Your task to perform on an android device: Do I have any events this weekend? Image 0: 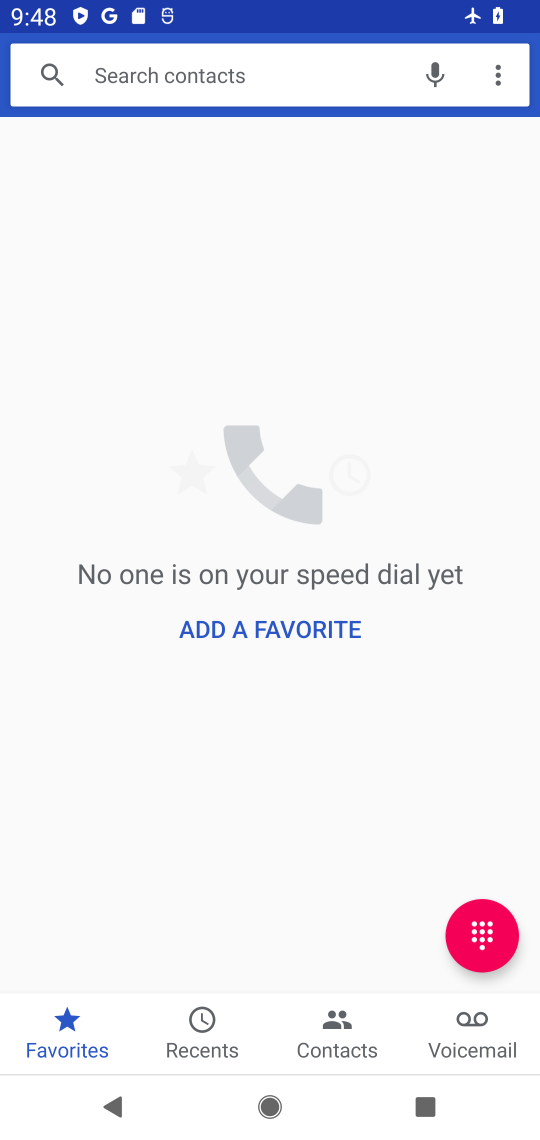
Step 0: press home button
Your task to perform on an android device: Do I have any events this weekend? Image 1: 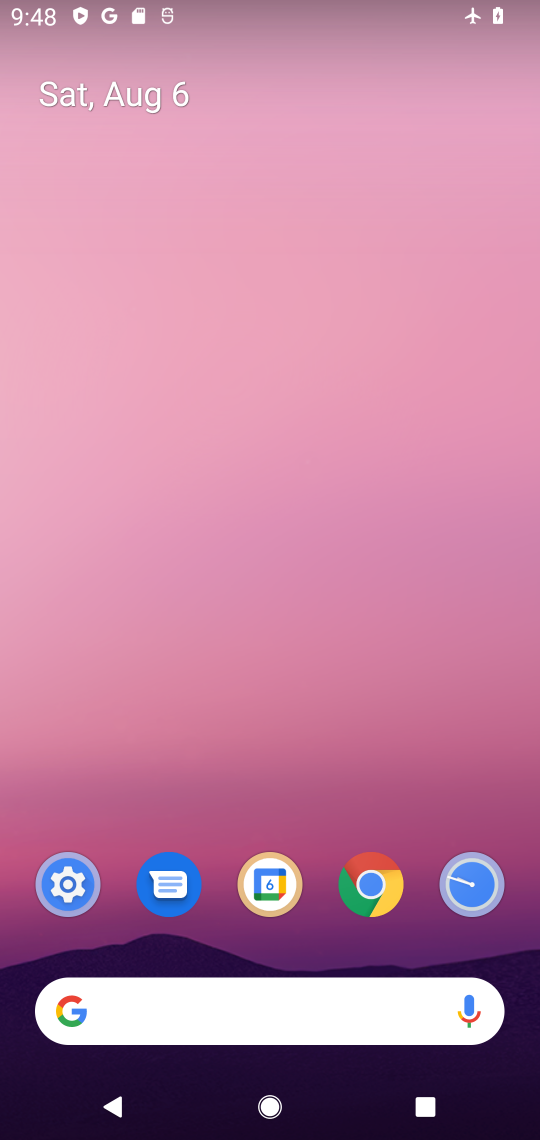
Step 1: click (273, 887)
Your task to perform on an android device: Do I have any events this weekend? Image 2: 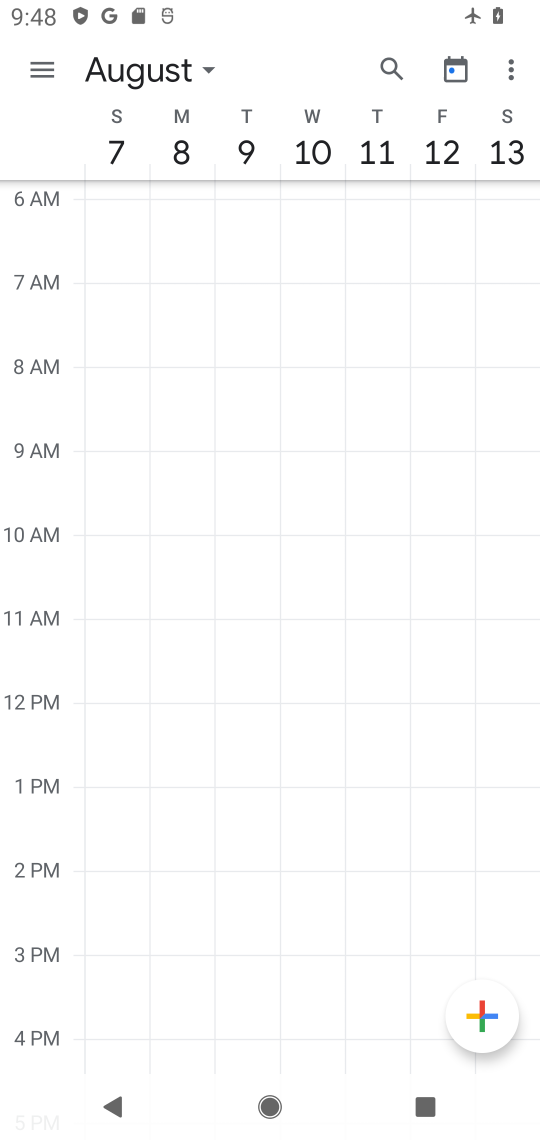
Step 2: click (196, 68)
Your task to perform on an android device: Do I have any events this weekend? Image 3: 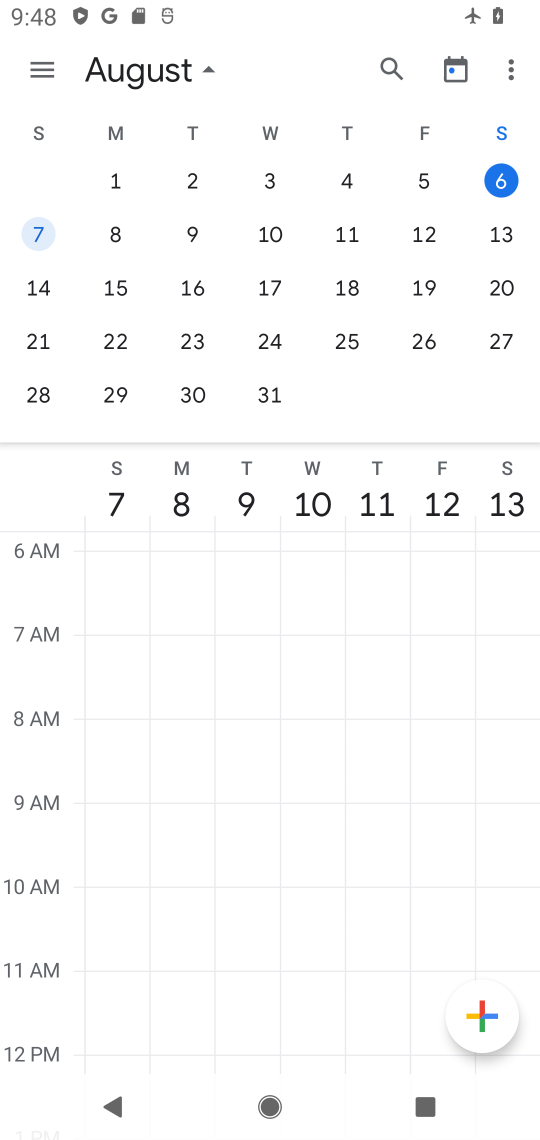
Step 3: click (495, 173)
Your task to perform on an android device: Do I have any events this weekend? Image 4: 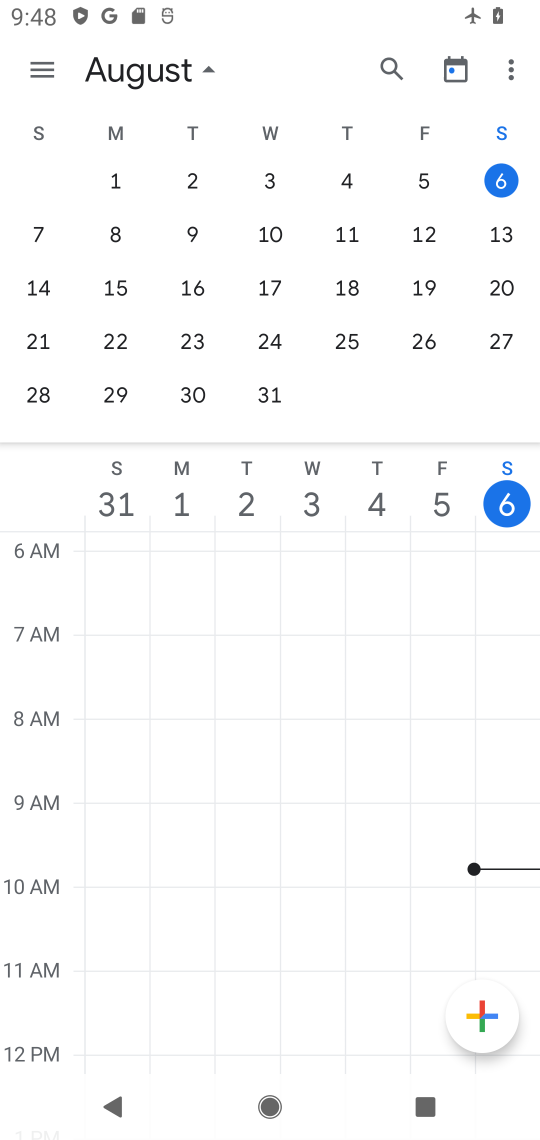
Step 4: task complete